Your task to perform on an android device: check android version Image 0: 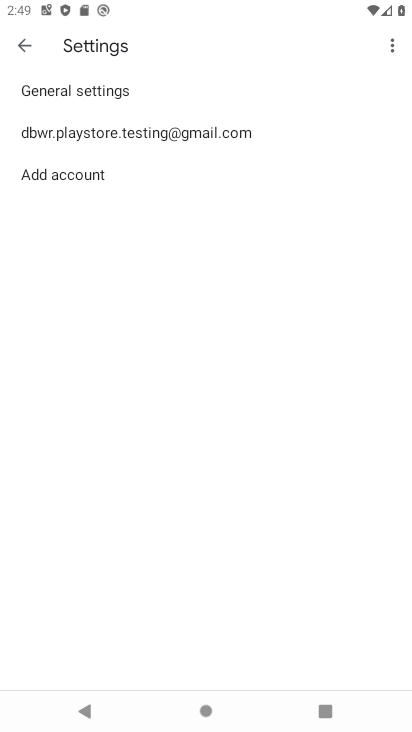
Step 0: press home button
Your task to perform on an android device: check android version Image 1: 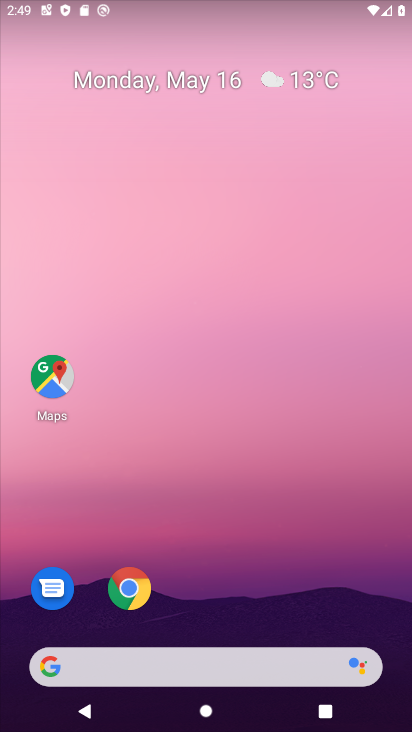
Step 1: drag from (221, 641) to (271, 46)
Your task to perform on an android device: check android version Image 2: 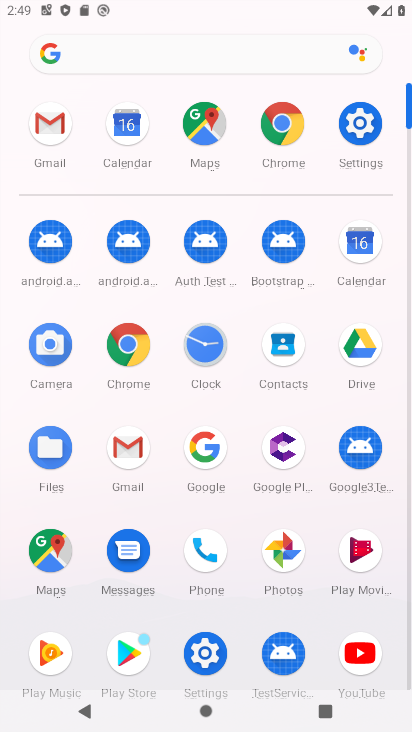
Step 2: click (368, 120)
Your task to perform on an android device: check android version Image 3: 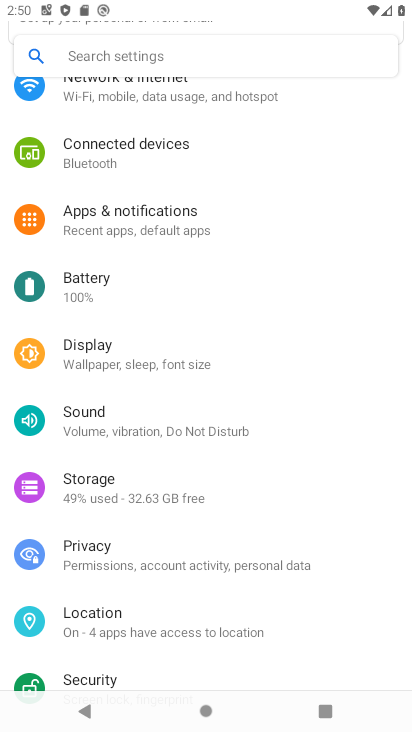
Step 3: drag from (256, 529) to (293, 23)
Your task to perform on an android device: check android version Image 4: 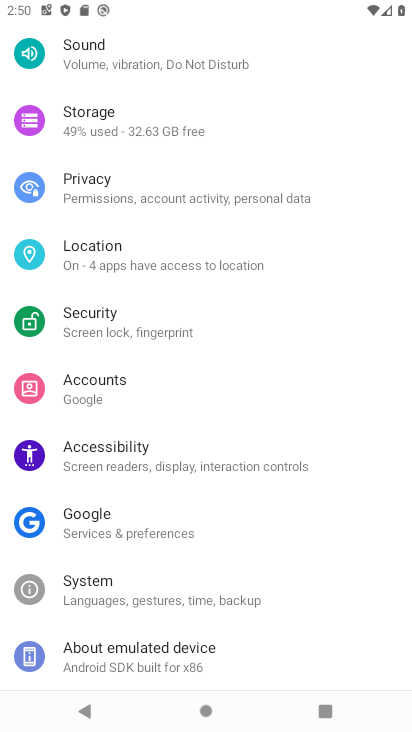
Step 4: click (145, 664)
Your task to perform on an android device: check android version Image 5: 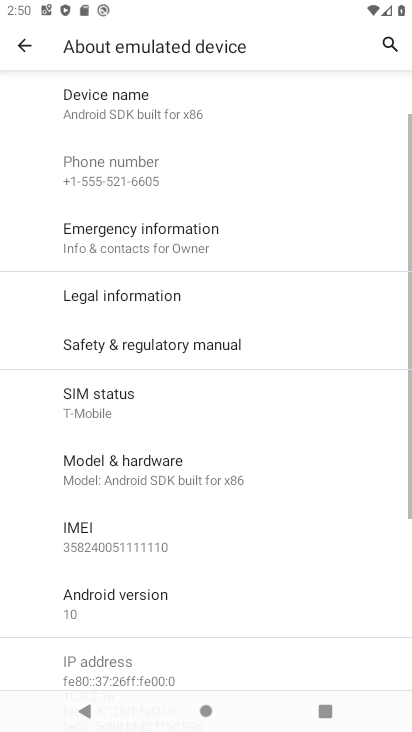
Step 5: click (152, 597)
Your task to perform on an android device: check android version Image 6: 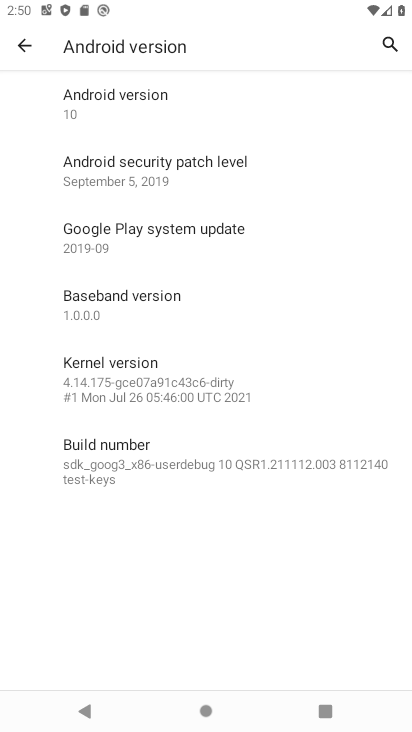
Step 6: task complete